Your task to perform on an android device: toggle translation in the chrome app Image 0: 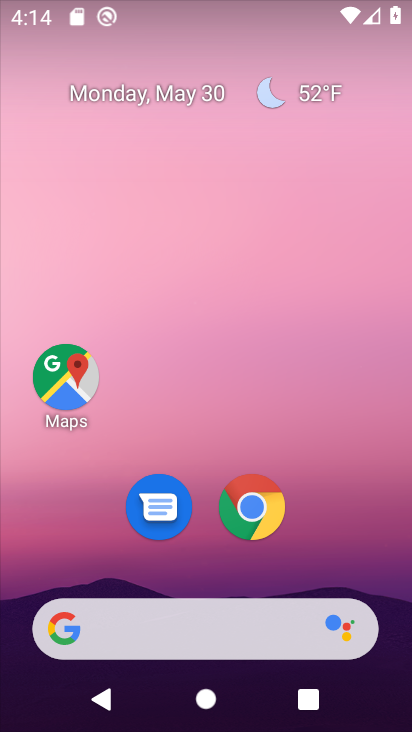
Step 0: press home button
Your task to perform on an android device: toggle translation in the chrome app Image 1: 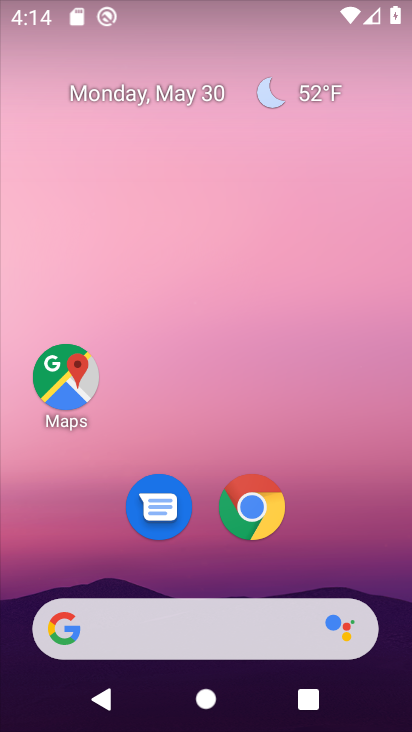
Step 1: click (284, 521)
Your task to perform on an android device: toggle translation in the chrome app Image 2: 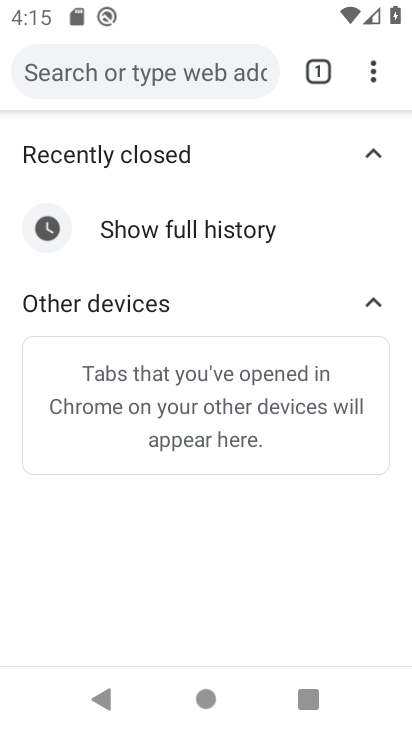
Step 2: drag from (363, 58) to (249, 474)
Your task to perform on an android device: toggle translation in the chrome app Image 3: 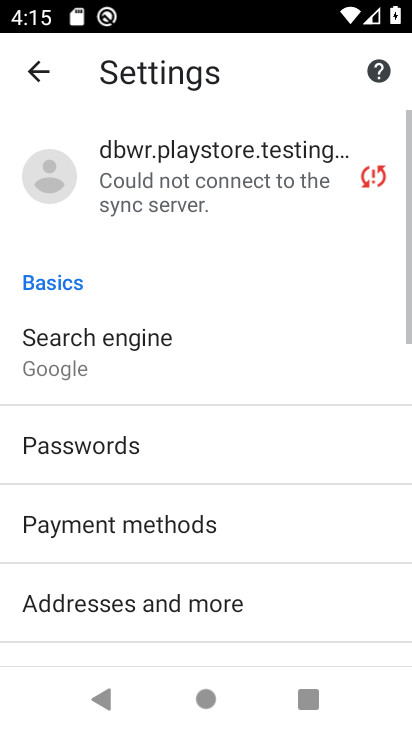
Step 3: drag from (285, 619) to (299, 160)
Your task to perform on an android device: toggle translation in the chrome app Image 4: 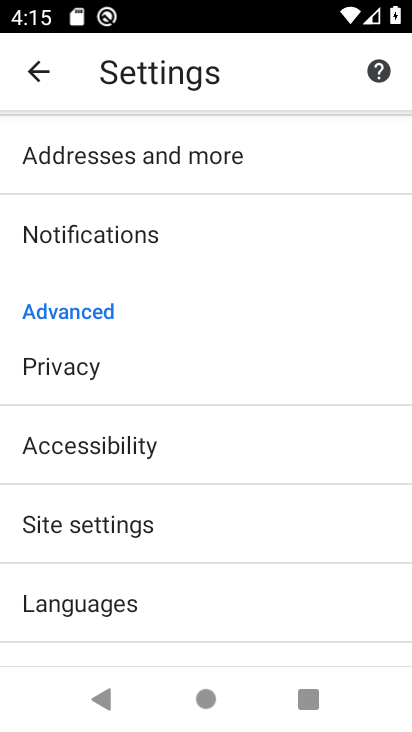
Step 4: click (199, 600)
Your task to perform on an android device: toggle translation in the chrome app Image 5: 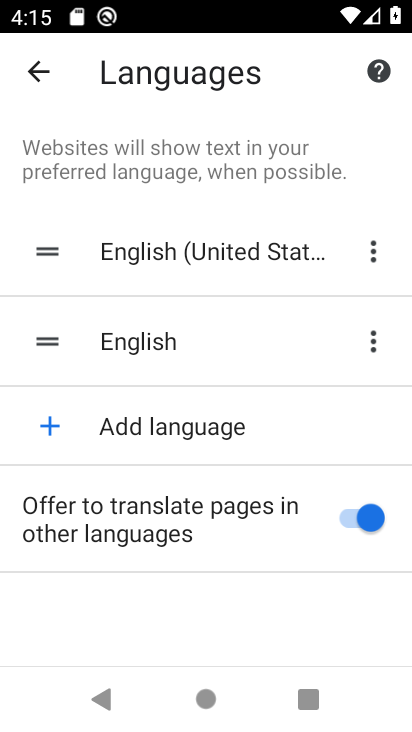
Step 5: click (223, 515)
Your task to perform on an android device: toggle translation in the chrome app Image 6: 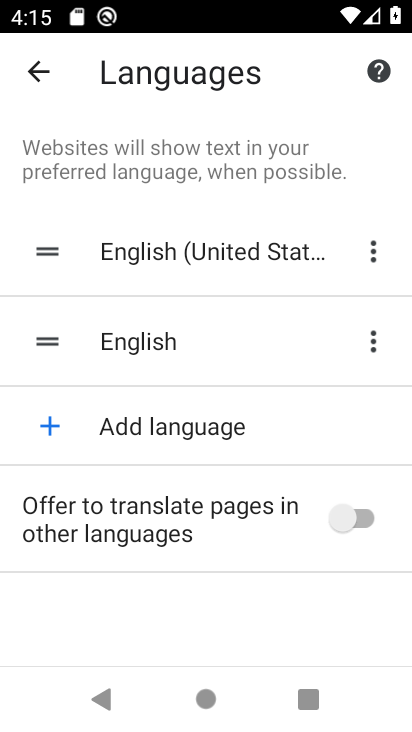
Step 6: task complete